Your task to perform on an android device: all mails in gmail Image 0: 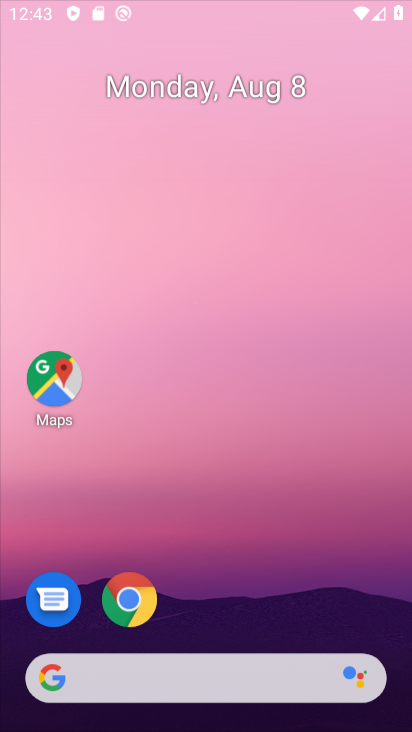
Step 0: press home button
Your task to perform on an android device: all mails in gmail Image 1: 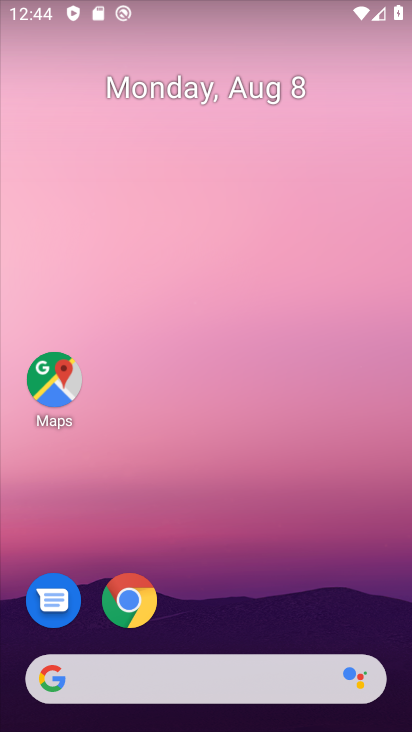
Step 1: drag from (271, 599) to (300, 96)
Your task to perform on an android device: all mails in gmail Image 2: 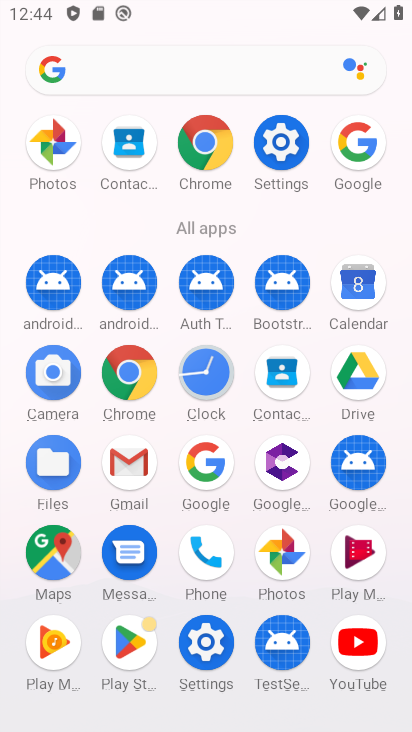
Step 2: click (120, 463)
Your task to perform on an android device: all mails in gmail Image 3: 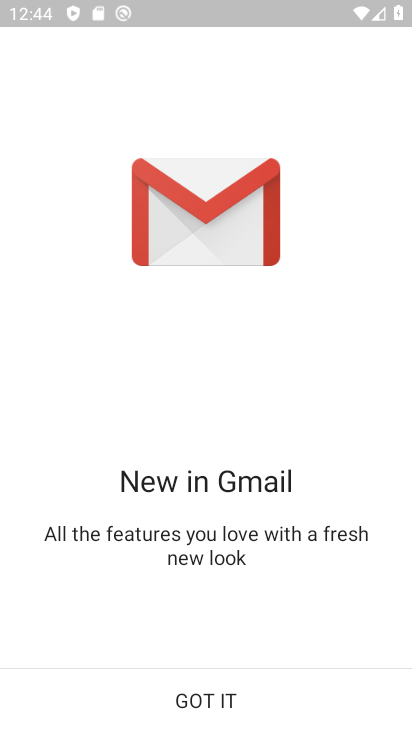
Step 3: click (224, 696)
Your task to perform on an android device: all mails in gmail Image 4: 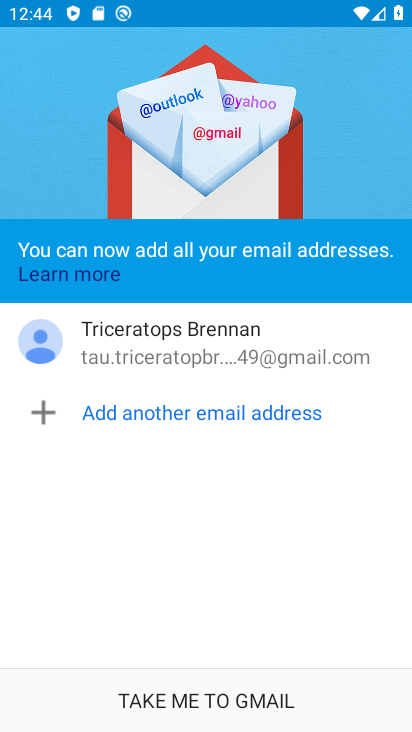
Step 4: click (224, 696)
Your task to perform on an android device: all mails in gmail Image 5: 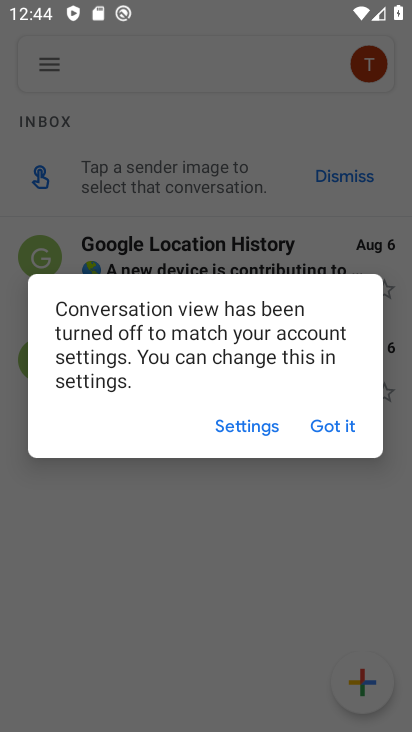
Step 5: click (336, 421)
Your task to perform on an android device: all mails in gmail Image 6: 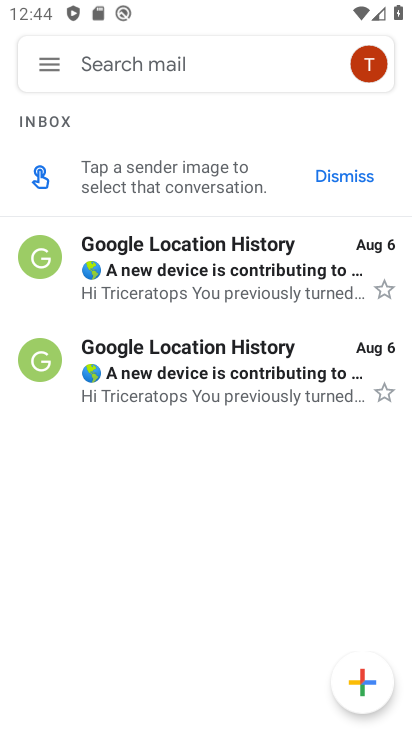
Step 6: click (48, 70)
Your task to perform on an android device: all mails in gmail Image 7: 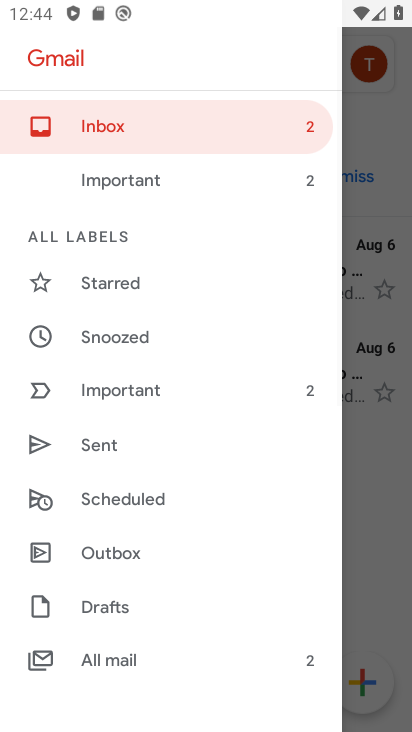
Step 7: drag from (106, 637) to (102, 585)
Your task to perform on an android device: all mails in gmail Image 8: 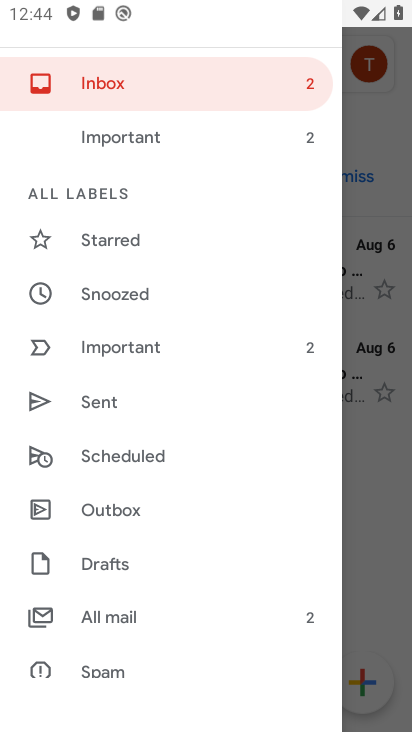
Step 8: click (105, 621)
Your task to perform on an android device: all mails in gmail Image 9: 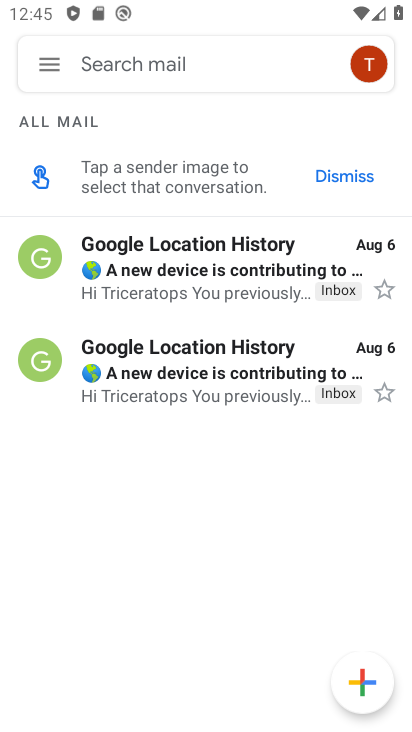
Step 9: task complete